Your task to perform on an android device: turn on airplane mode Image 0: 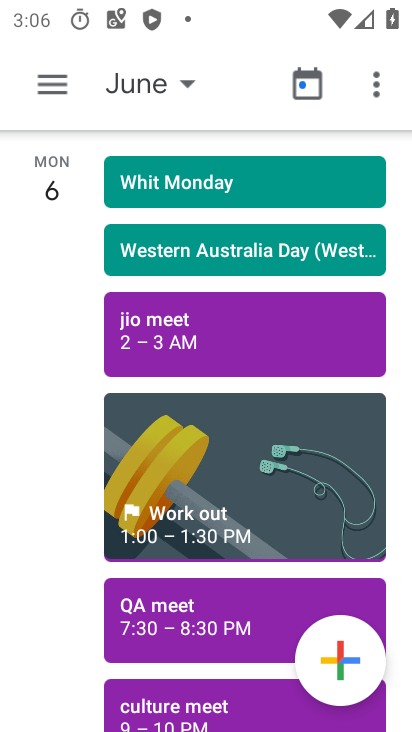
Step 0: press home button
Your task to perform on an android device: turn on airplane mode Image 1: 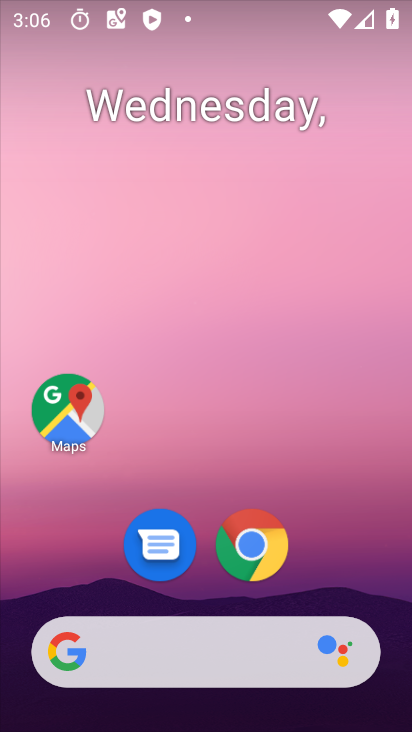
Step 1: drag from (317, 578) to (333, 142)
Your task to perform on an android device: turn on airplane mode Image 2: 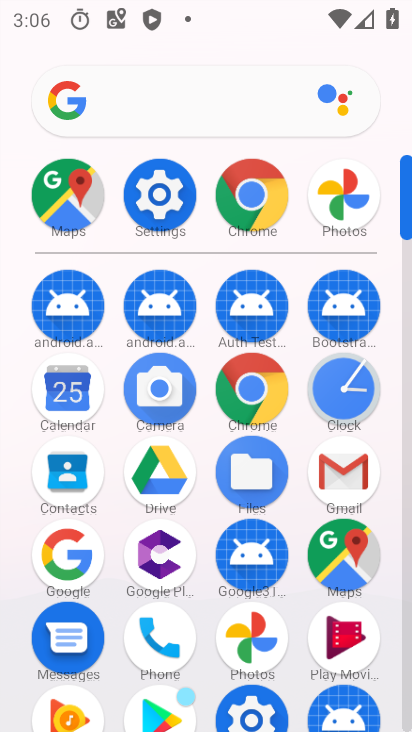
Step 2: click (164, 192)
Your task to perform on an android device: turn on airplane mode Image 3: 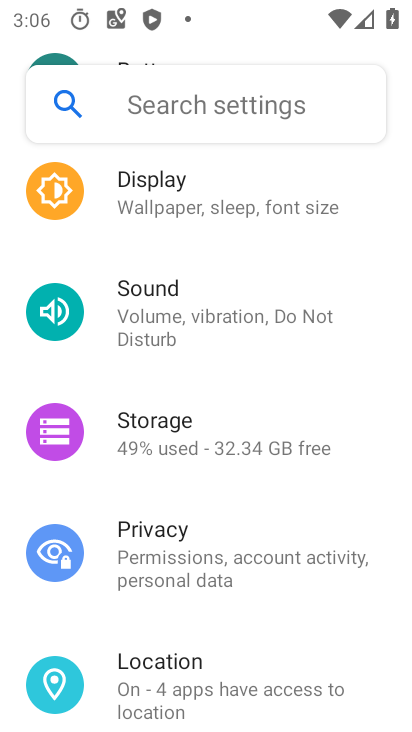
Step 3: drag from (173, 191) to (178, 495)
Your task to perform on an android device: turn on airplane mode Image 4: 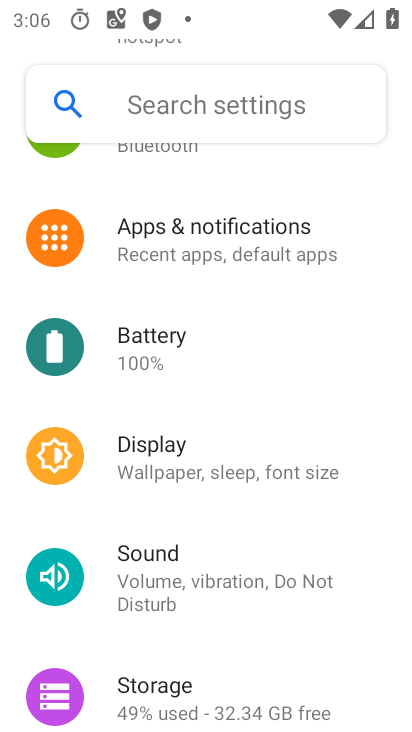
Step 4: drag from (227, 267) to (226, 591)
Your task to perform on an android device: turn on airplane mode Image 5: 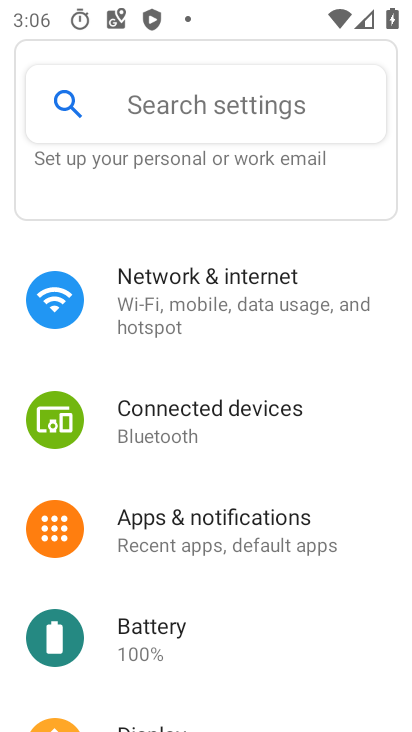
Step 5: click (240, 313)
Your task to perform on an android device: turn on airplane mode Image 6: 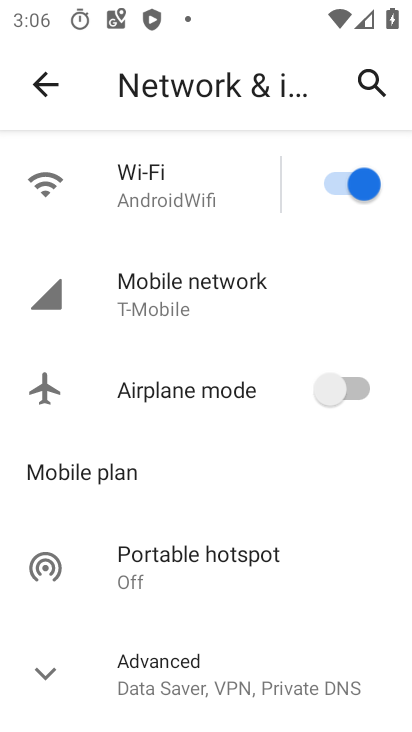
Step 6: click (353, 392)
Your task to perform on an android device: turn on airplane mode Image 7: 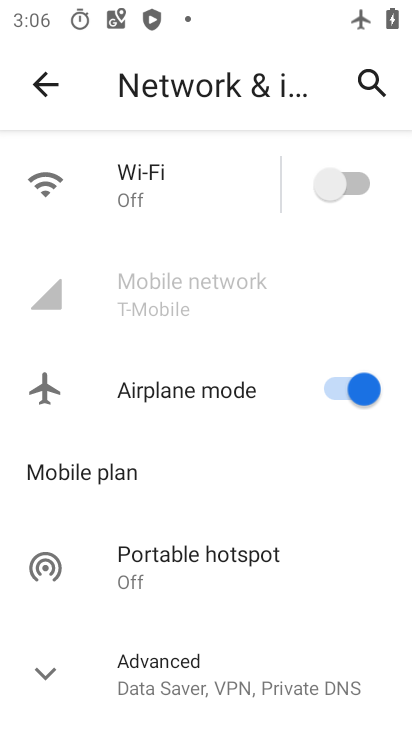
Step 7: task complete